Your task to perform on an android device: see creations saved in the google photos Image 0: 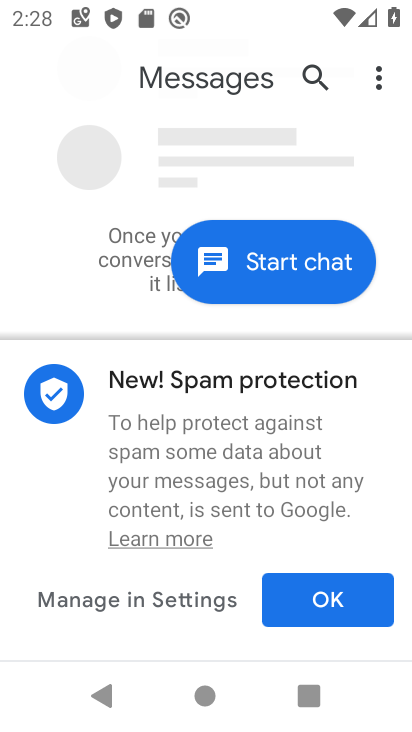
Step 0: press home button
Your task to perform on an android device: see creations saved in the google photos Image 1: 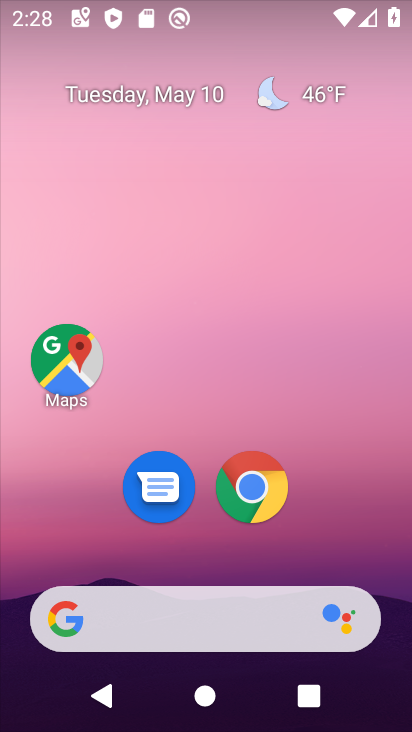
Step 1: drag from (316, 501) to (274, 140)
Your task to perform on an android device: see creations saved in the google photos Image 2: 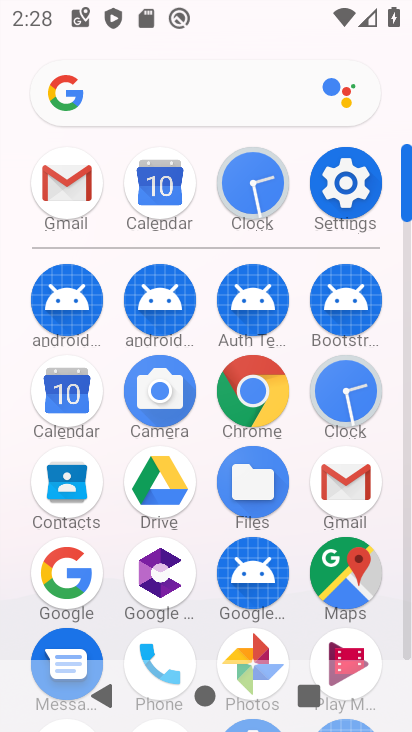
Step 2: click (258, 649)
Your task to perform on an android device: see creations saved in the google photos Image 3: 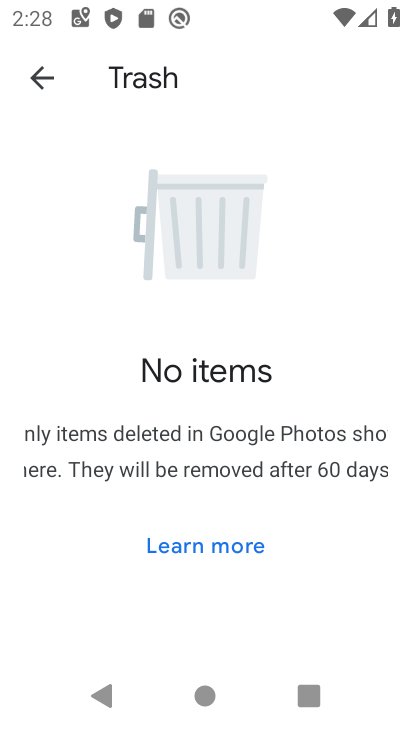
Step 3: click (40, 86)
Your task to perform on an android device: see creations saved in the google photos Image 4: 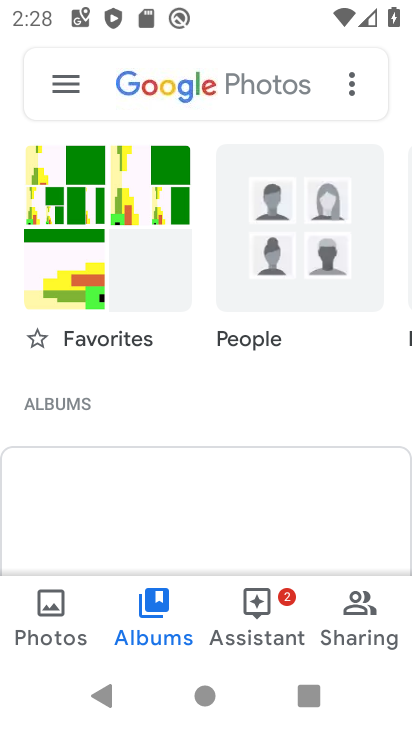
Step 4: click (348, 622)
Your task to perform on an android device: see creations saved in the google photos Image 5: 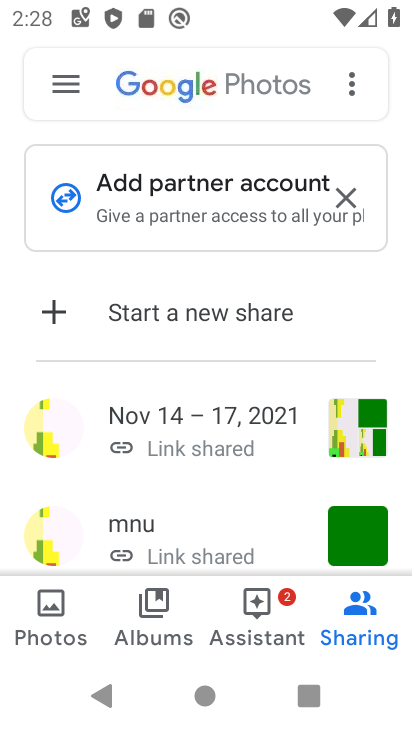
Step 5: click (262, 631)
Your task to perform on an android device: see creations saved in the google photos Image 6: 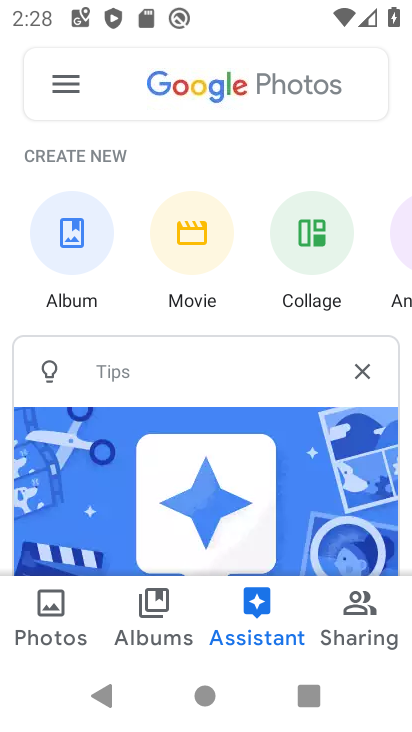
Step 6: click (27, 614)
Your task to perform on an android device: see creations saved in the google photos Image 7: 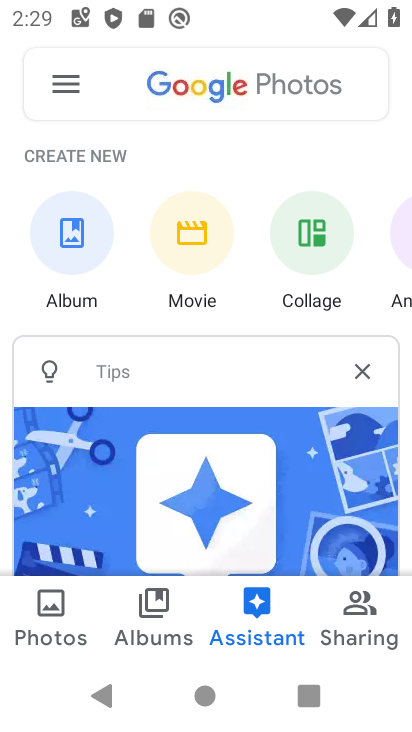
Step 7: task complete